Your task to perform on an android device: turn off improve location accuracy Image 0: 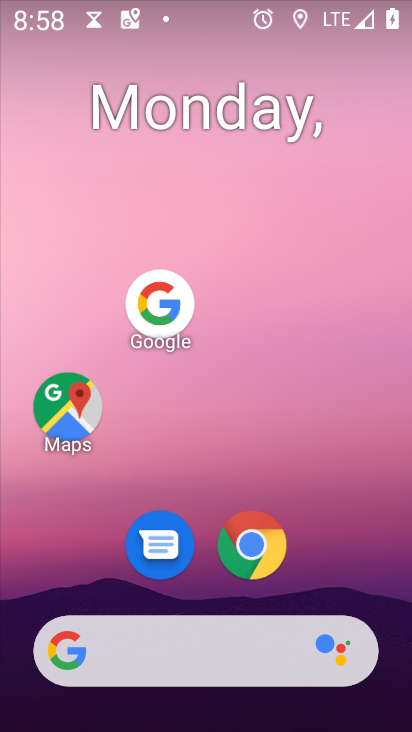
Step 0: press home button
Your task to perform on an android device: turn off improve location accuracy Image 1: 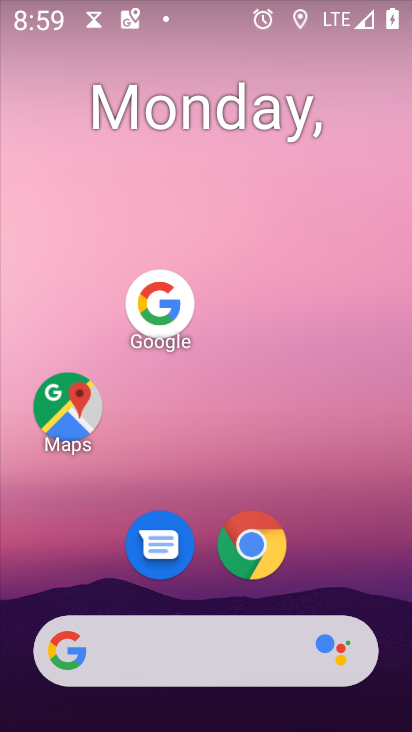
Step 1: drag from (202, 666) to (341, 81)
Your task to perform on an android device: turn off improve location accuracy Image 2: 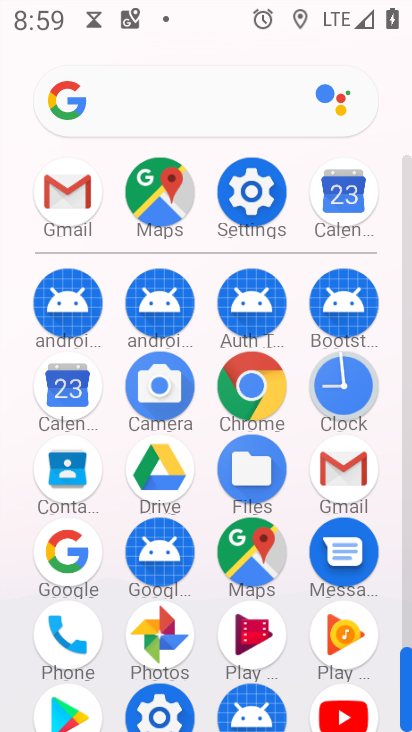
Step 2: click (224, 210)
Your task to perform on an android device: turn off improve location accuracy Image 3: 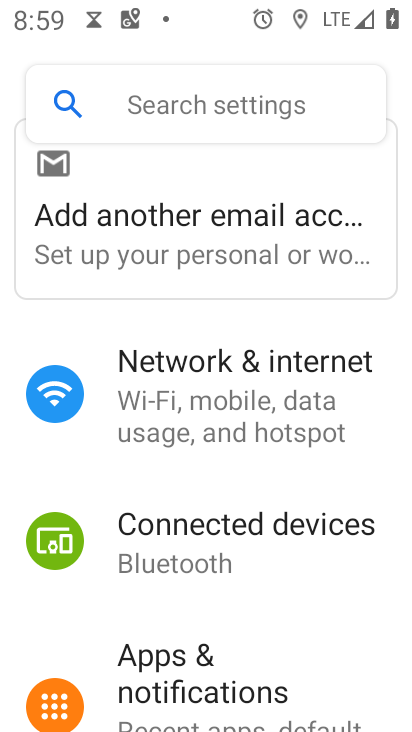
Step 3: drag from (137, 653) to (300, 117)
Your task to perform on an android device: turn off improve location accuracy Image 4: 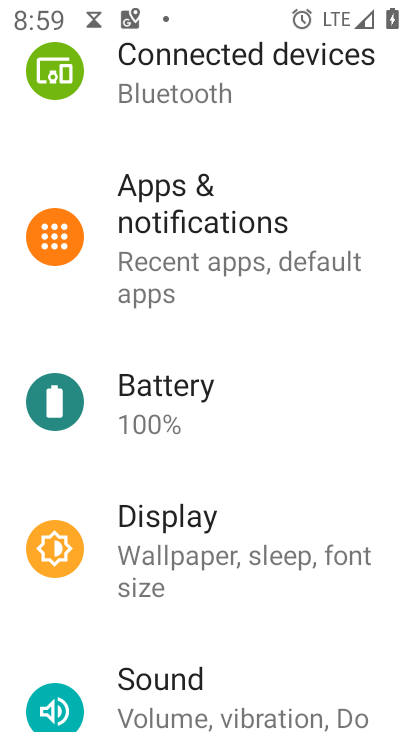
Step 4: drag from (165, 563) to (297, 156)
Your task to perform on an android device: turn off improve location accuracy Image 5: 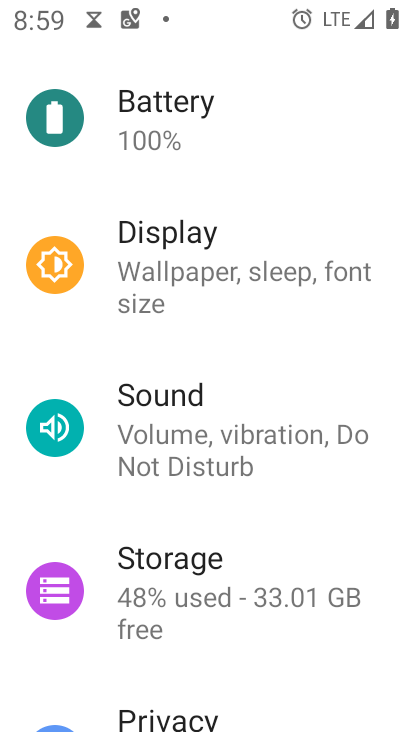
Step 5: drag from (219, 651) to (408, 80)
Your task to perform on an android device: turn off improve location accuracy Image 6: 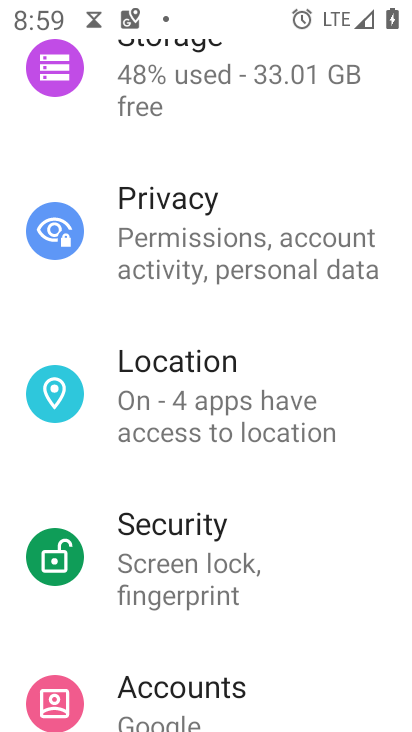
Step 6: click (174, 393)
Your task to perform on an android device: turn off improve location accuracy Image 7: 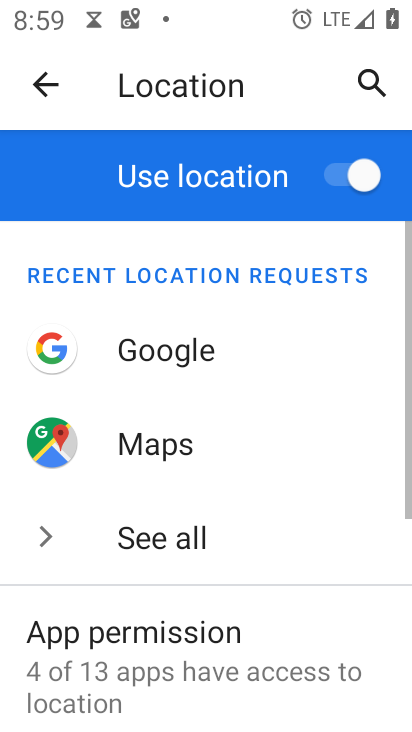
Step 7: drag from (132, 635) to (249, 323)
Your task to perform on an android device: turn off improve location accuracy Image 8: 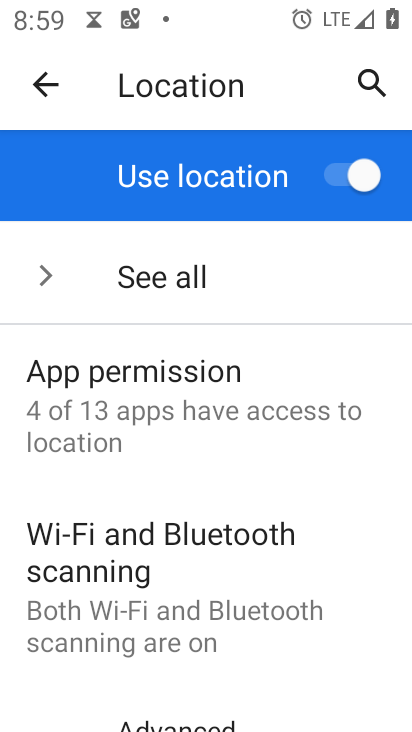
Step 8: drag from (206, 563) to (387, 78)
Your task to perform on an android device: turn off improve location accuracy Image 9: 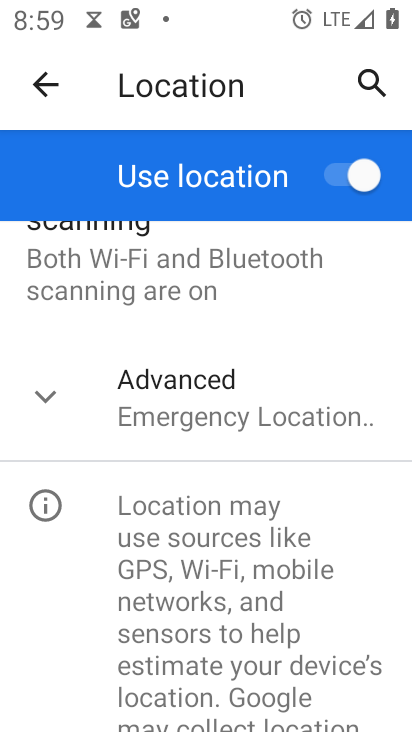
Step 9: click (203, 389)
Your task to perform on an android device: turn off improve location accuracy Image 10: 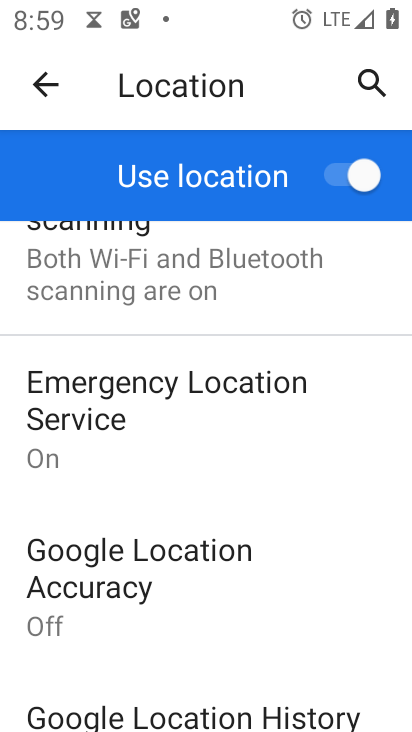
Step 10: click (109, 583)
Your task to perform on an android device: turn off improve location accuracy Image 11: 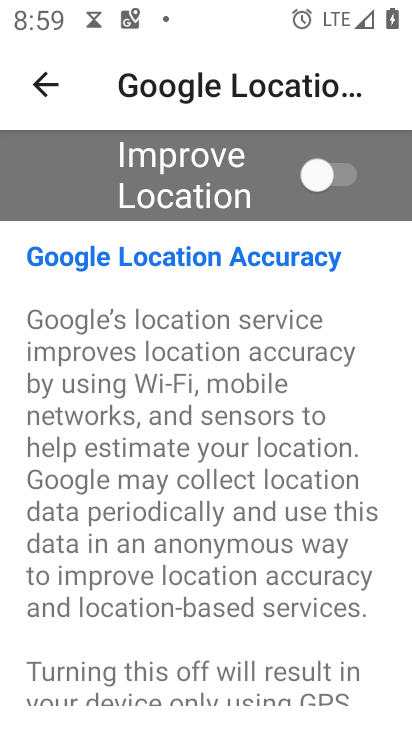
Step 11: task complete